Your task to perform on an android device: turn on priority inbox in the gmail app Image 0: 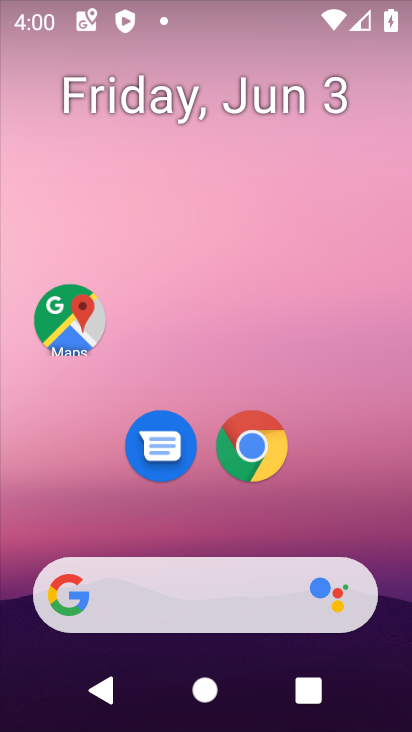
Step 0: task complete